Your task to perform on an android device: Open accessibility settings Image 0: 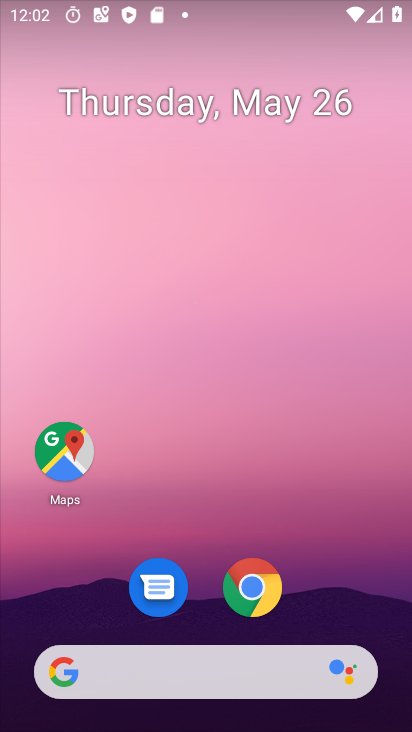
Step 0: drag from (224, 664) to (225, 33)
Your task to perform on an android device: Open accessibility settings Image 1: 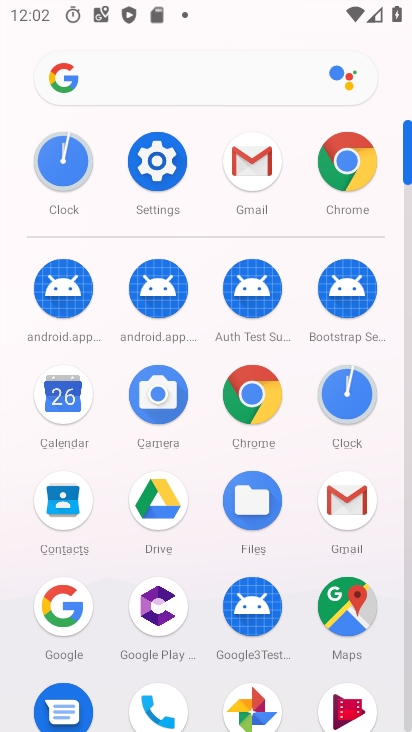
Step 1: click (151, 184)
Your task to perform on an android device: Open accessibility settings Image 2: 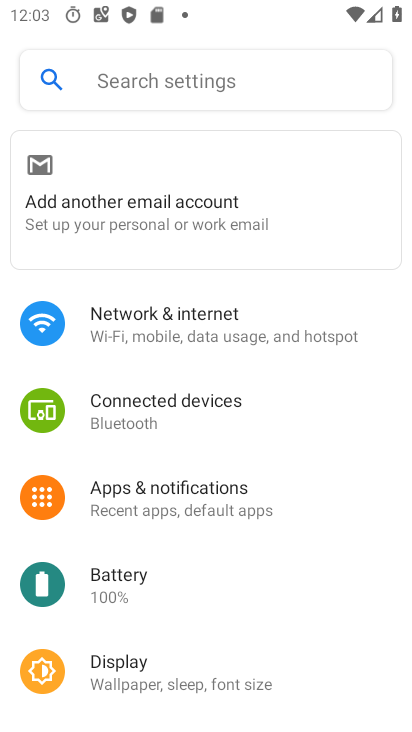
Step 2: click (87, 73)
Your task to perform on an android device: Open accessibility settings Image 3: 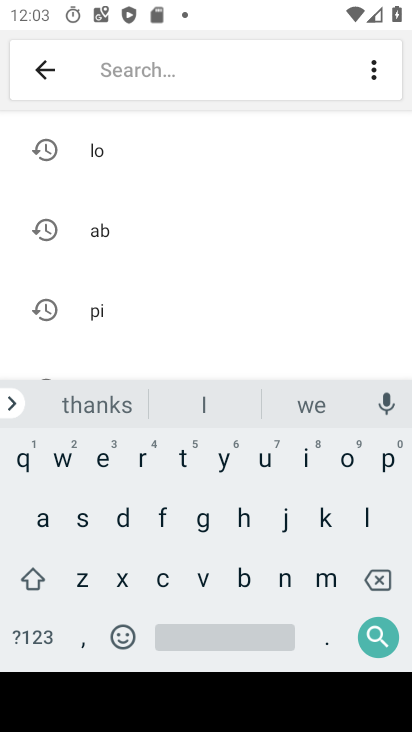
Step 3: click (26, 511)
Your task to perform on an android device: Open accessibility settings Image 4: 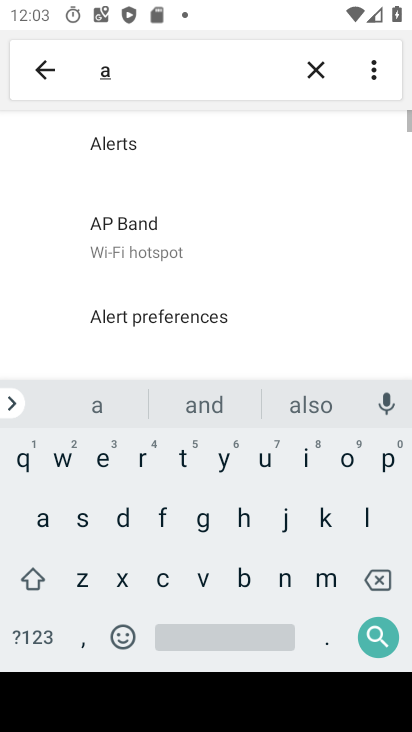
Step 4: click (158, 577)
Your task to perform on an android device: Open accessibility settings Image 5: 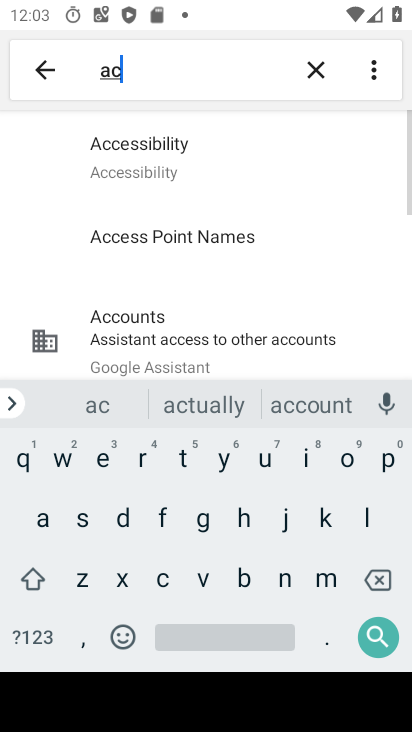
Step 5: click (121, 152)
Your task to perform on an android device: Open accessibility settings Image 6: 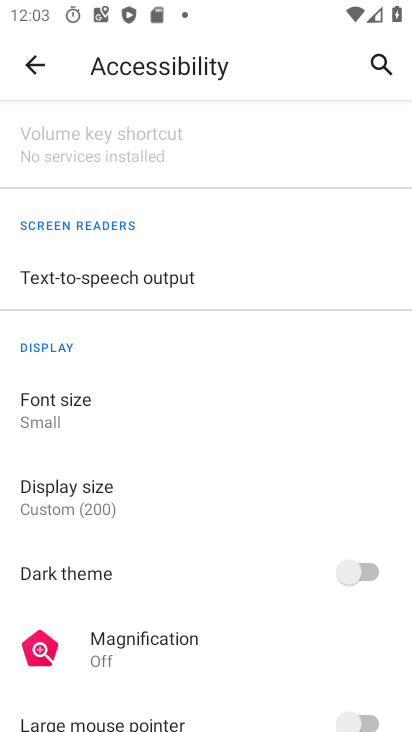
Step 6: task complete